Your task to perform on an android device: turn on location history Image 0: 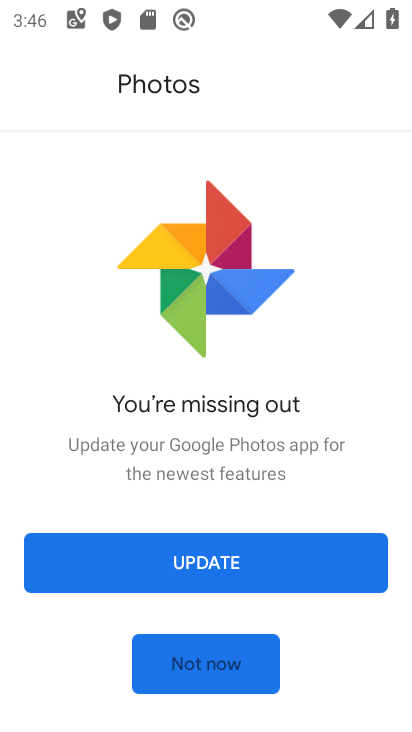
Step 0: press home button
Your task to perform on an android device: turn on location history Image 1: 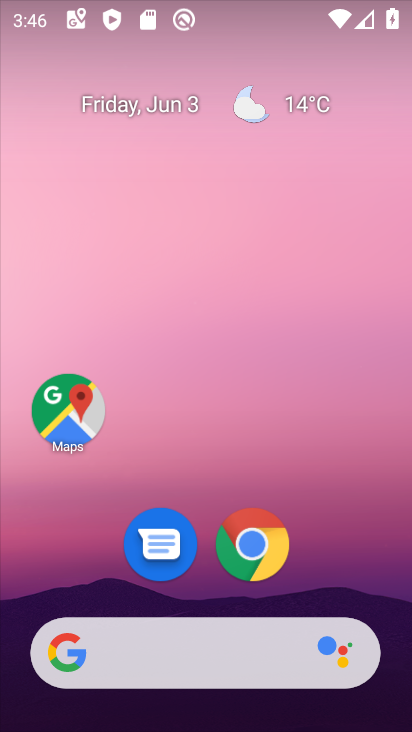
Step 1: click (70, 407)
Your task to perform on an android device: turn on location history Image 2: 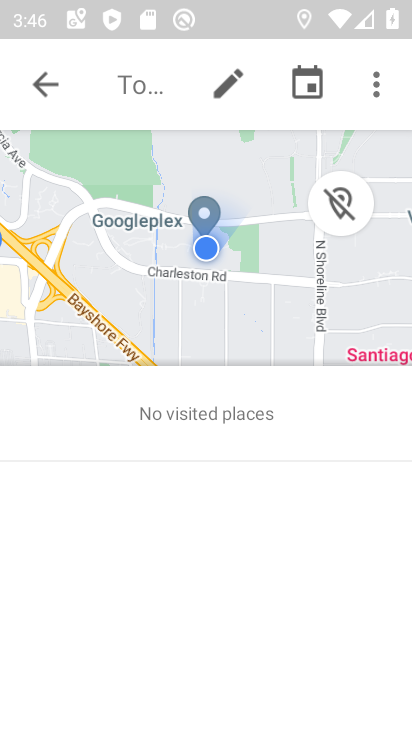
Step 2: press back button
Your task to perform on an android device: turn on location history Image 3: 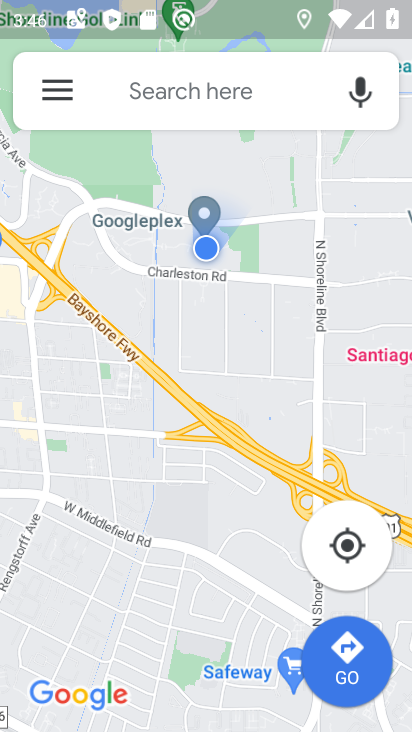
Step 3: click (53, 91)
Your task to perform on an android device: turn on location history Image 4: 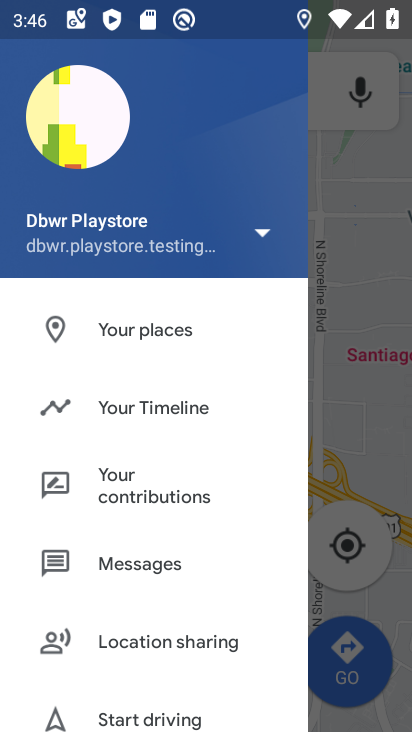
Step 4: drag from (232, 588) to (215, 138)
Your task to perform on an android device: turn on location history Image 5: 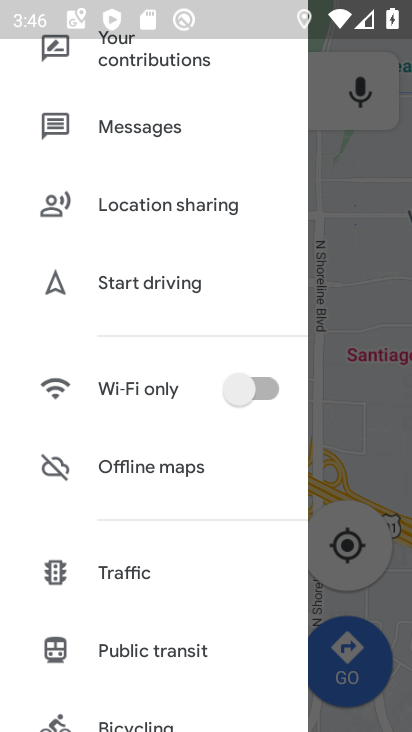
Step 5: drag from (202, 589) to (225, 72)
Your task to perform on an android device: turn on location history Image 6: 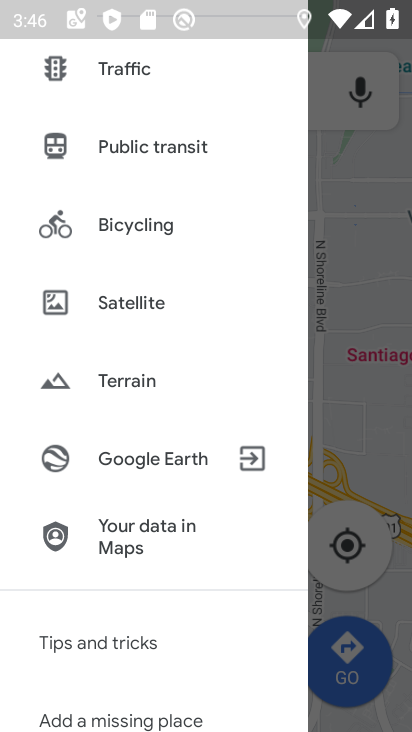
Step 6: drag from (167, 651) to (184, 252)
Your task to perform on an android device: turn on location history Image 7: 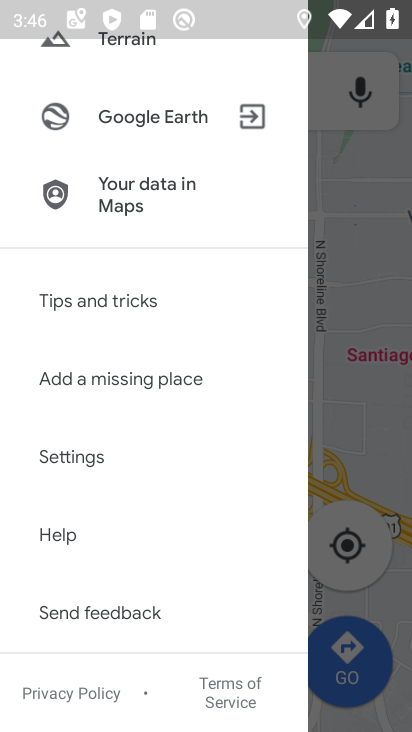
Step 7: click (73, 458)
Your task to perform on an android device: turn on location history Image 8: 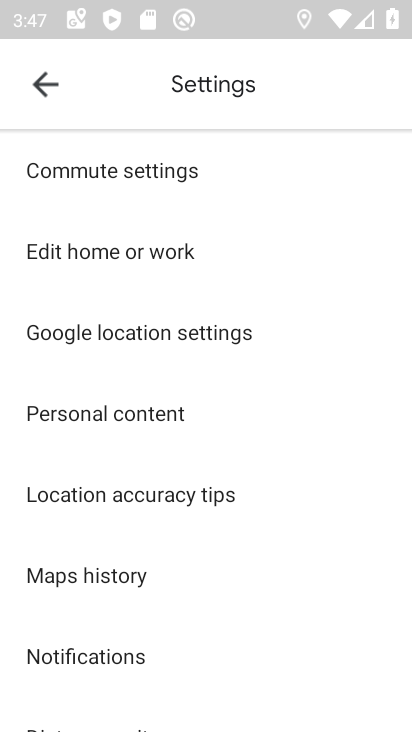
Step 8: click (115, 413)
Your task to perform on an android device: turn on location history Image 9: 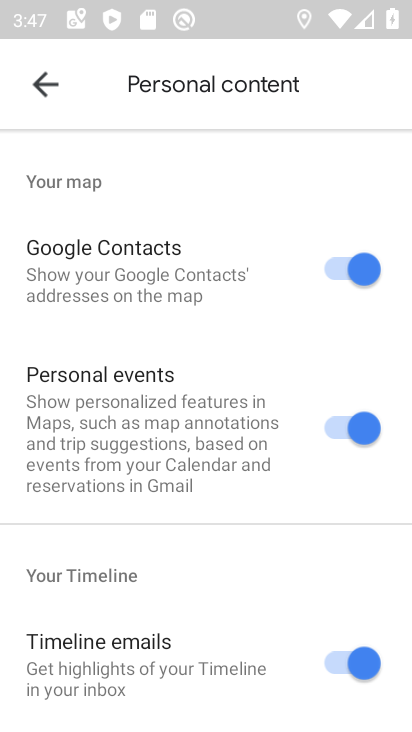
Step 9: drag from (260, 628) to (255, 159)
Your task to perform on an android device: turn on location history Image 10: 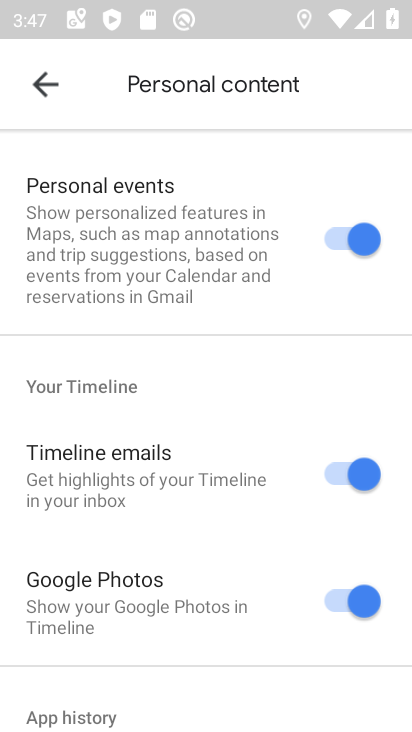
Step 10: drag from (252, 647) to (274, 132)
Your task to perform on an android device: turn on location history Image 11: 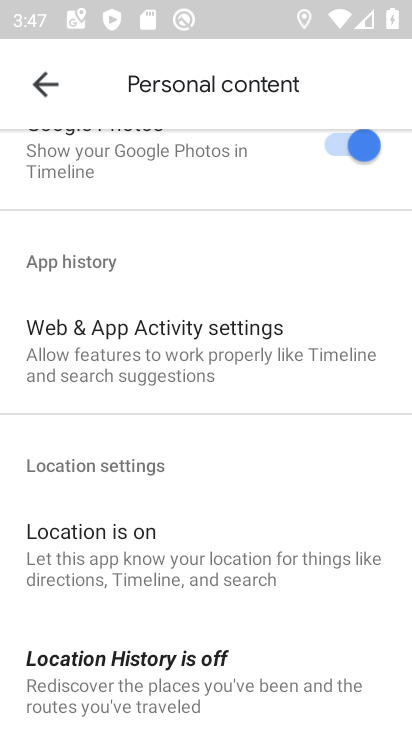
Step 11: drag from (285, 591) to (276, 274)
Your task to perform on an android device: turn on location history Image 12: 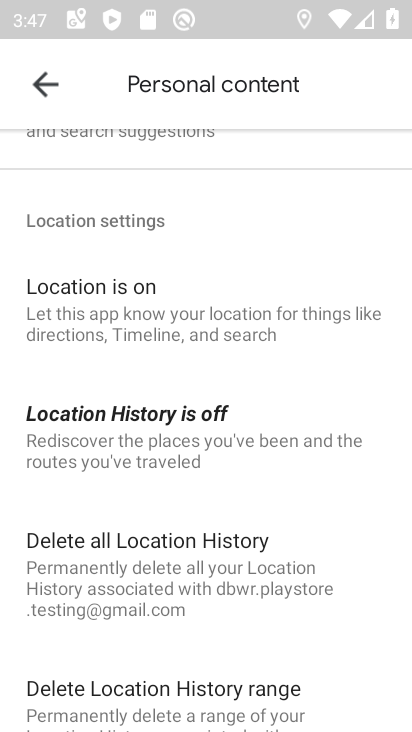
Step 12: click (160, 412)
Your task to perform on an android device: turn on location history Image 13: 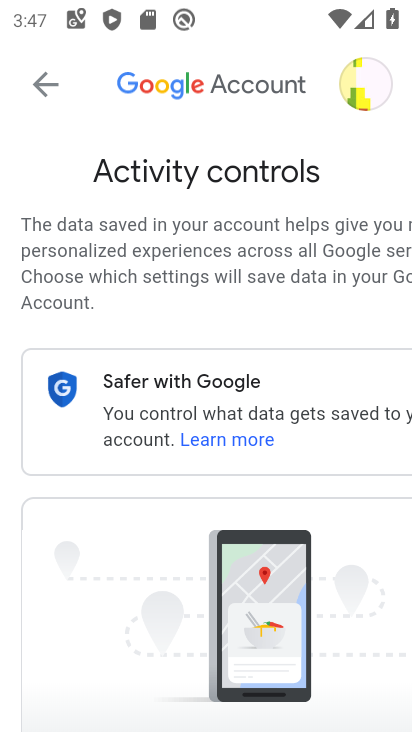
Step 13: task complete